Your task to perform on an android device: allow cookies in the chrome app Image 0: 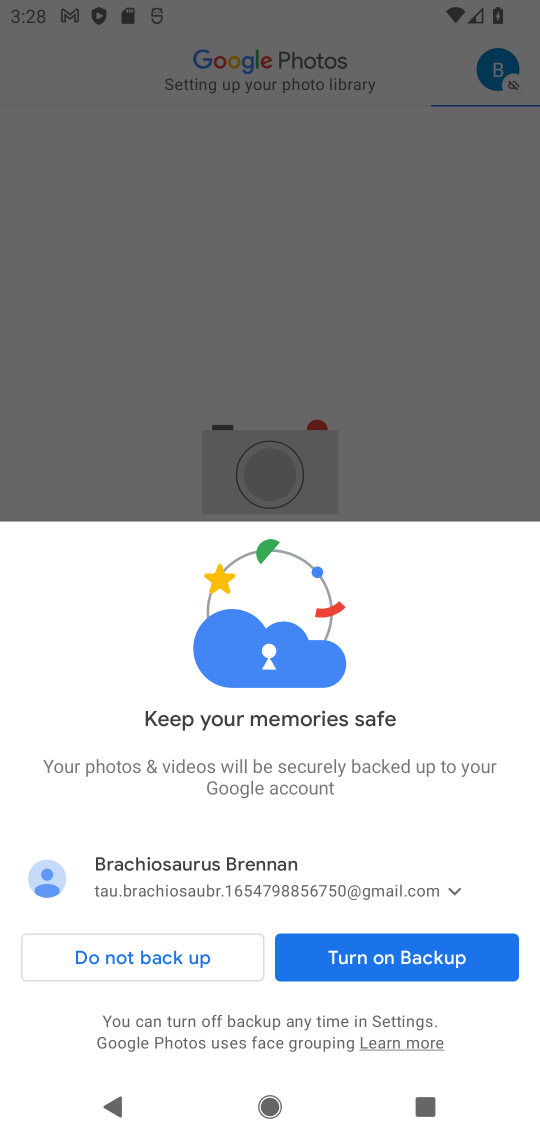
Step 0: press home button
Your task to perform on an android device: allow cookies in the chrome app Image 1: 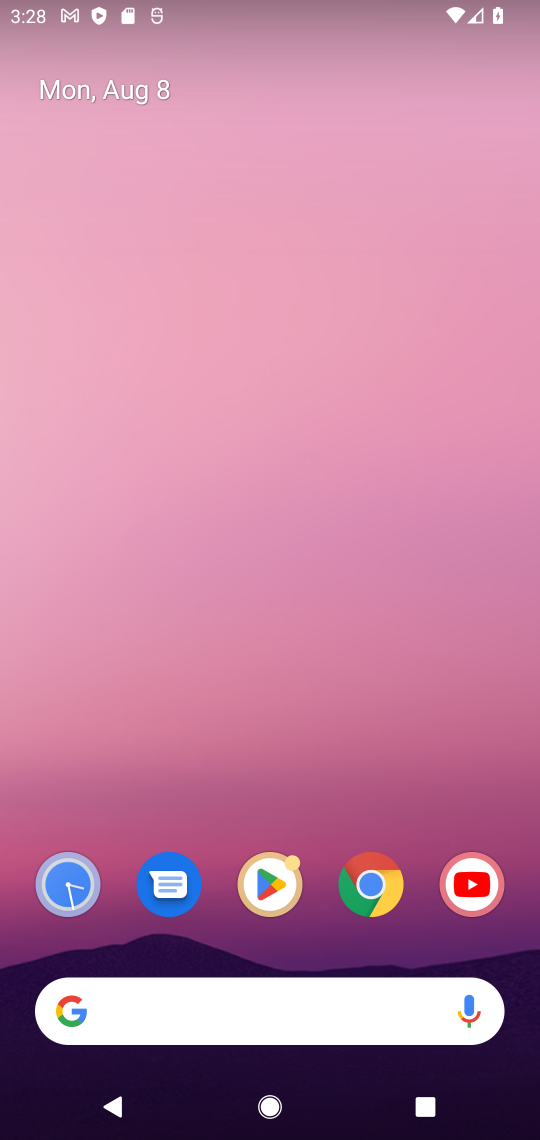
Step 1: click (361, 887)
Your task to perform on an android device: allow cookies in the chrome app Image 2: 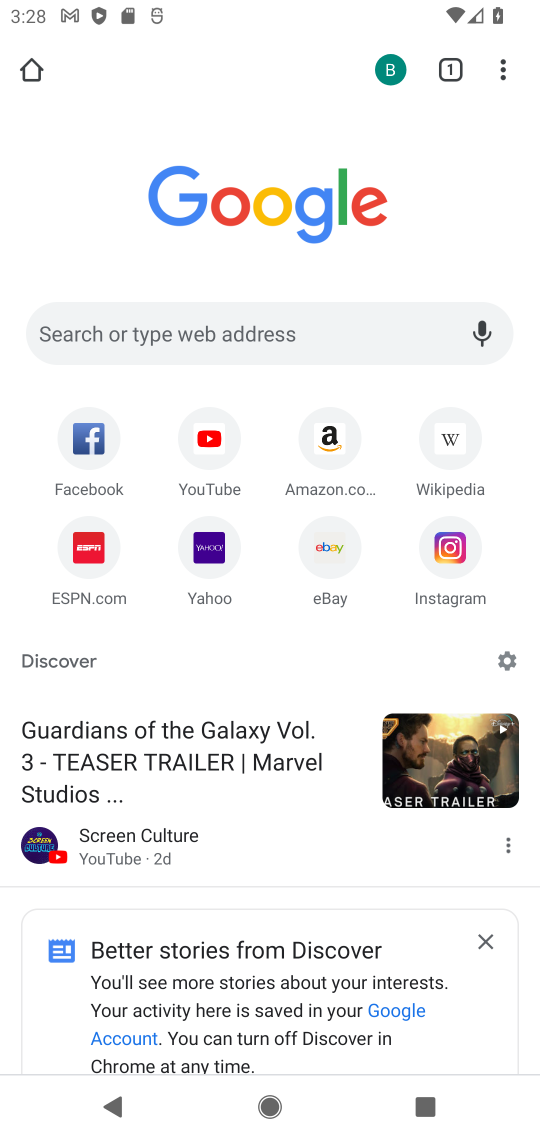
Step 2: click (503, 69)
Your task to perform on an android device: allow cookies in the chrome app Image 3: 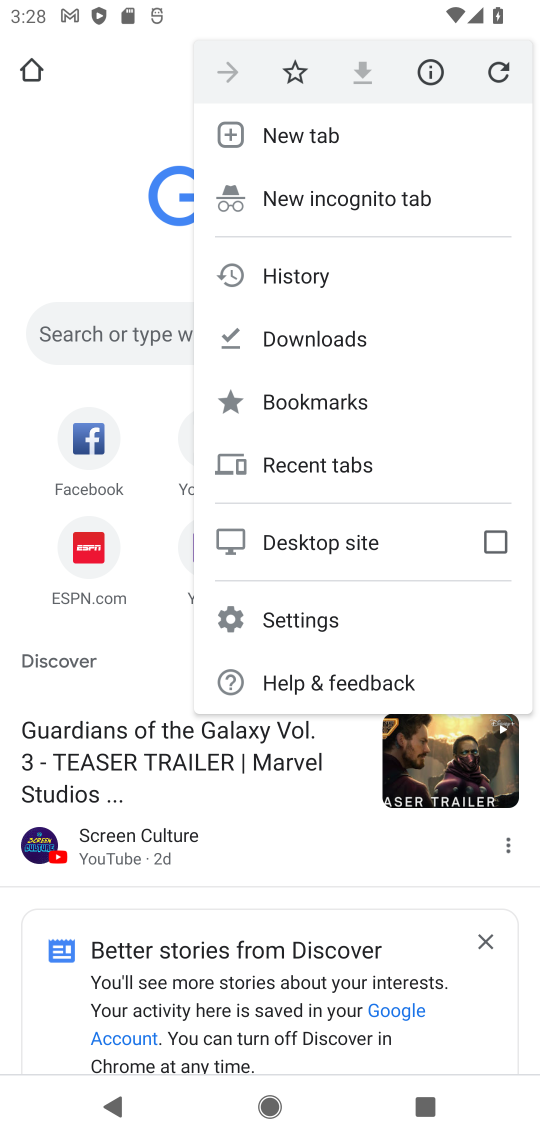
Step 3: click (313, 625)
Your task to perform on an android device: allow cookies in the chrome app Image 4: 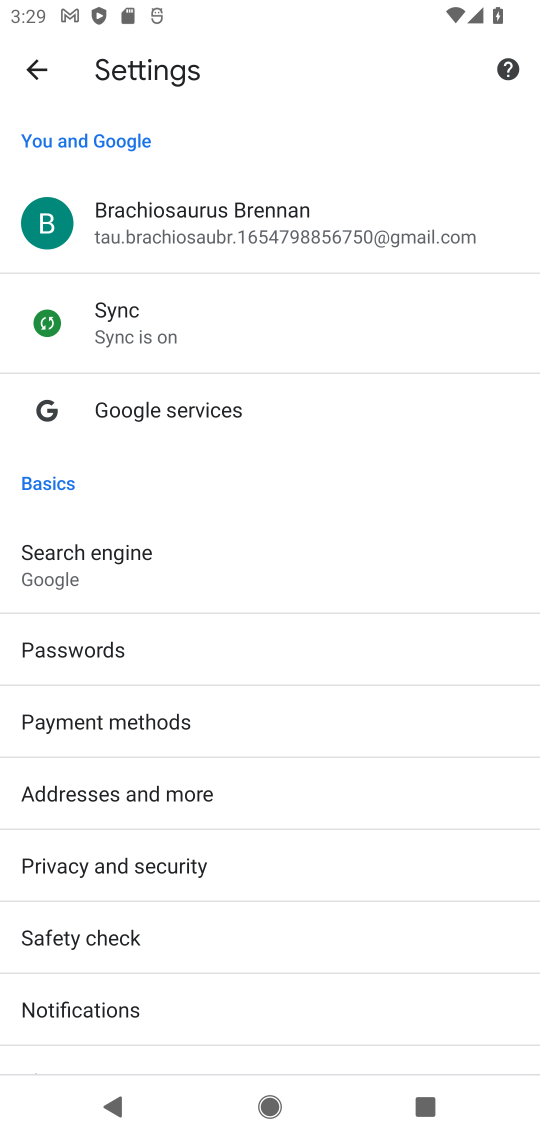
Step 4: drag from (352, 927) to (351, 284)
Your task to perform on an android device: allow cookies in the chrome app Image 5: 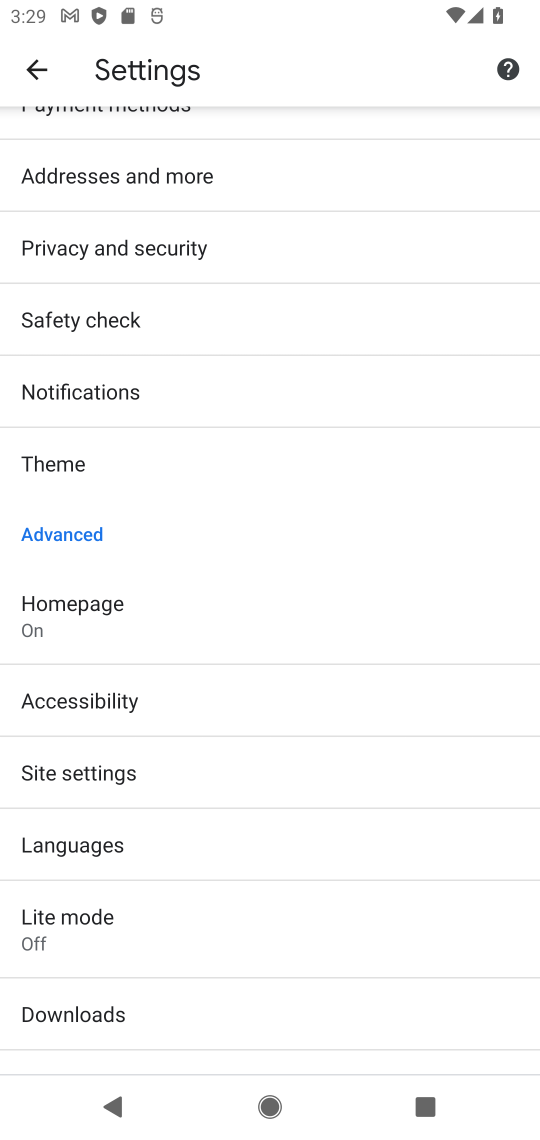
Step 5: click (212, 778)
Your task to perform on an android device: allow cookies in the chrome app Image 6: 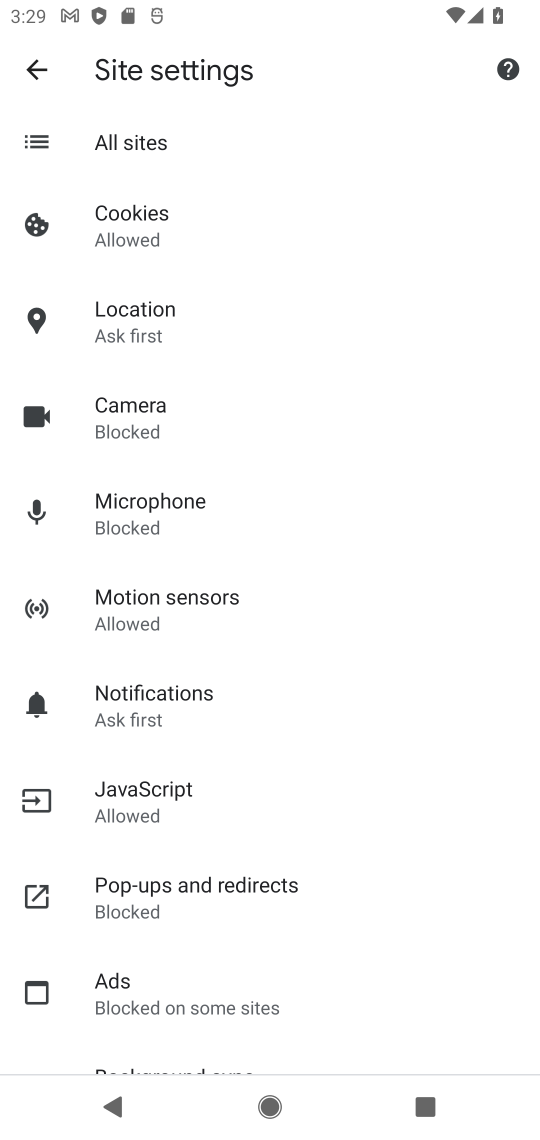
Step 6: click (221, 218)
Your task to perform on an android device: allow cookies in the chrome app Image 7: 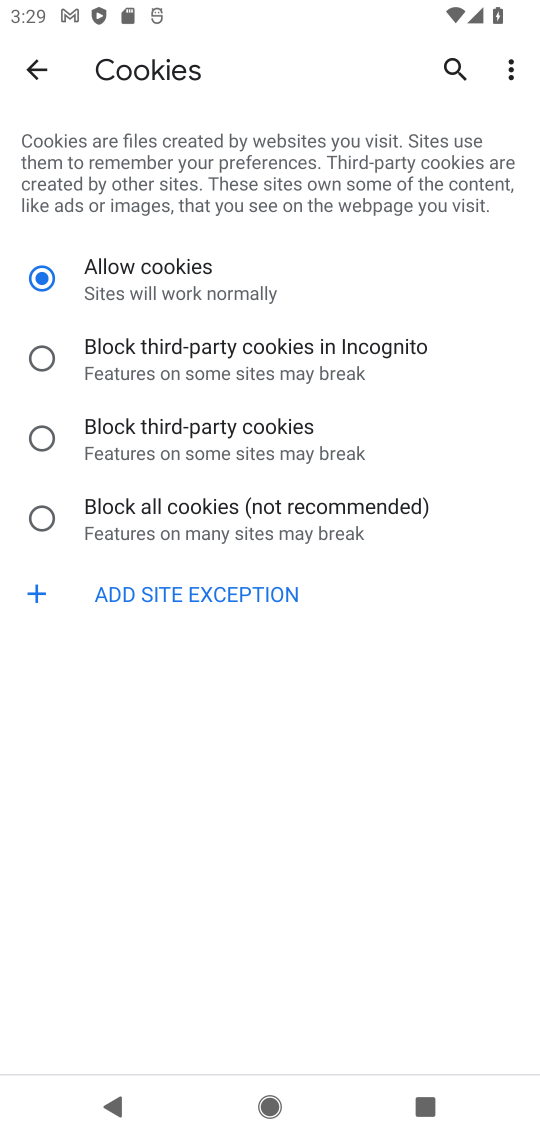
Step 7: task complete